Your task to perform on an android device: Search for pizza restaurants on Maps Image 0: 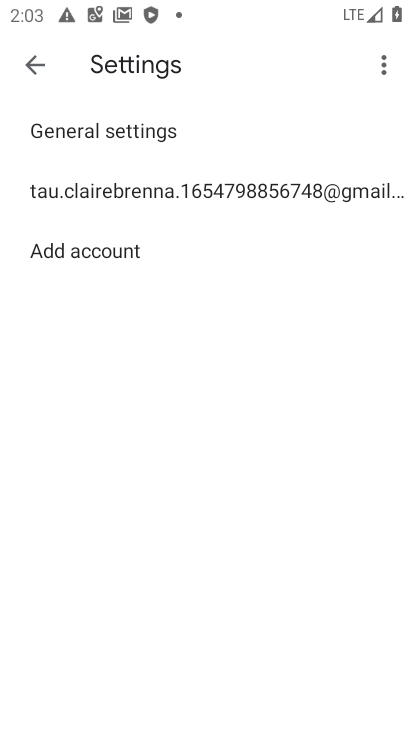
Step 0: press home button
Your task to perform on an android device: Search for pizza restaurants on Maps Image 1: 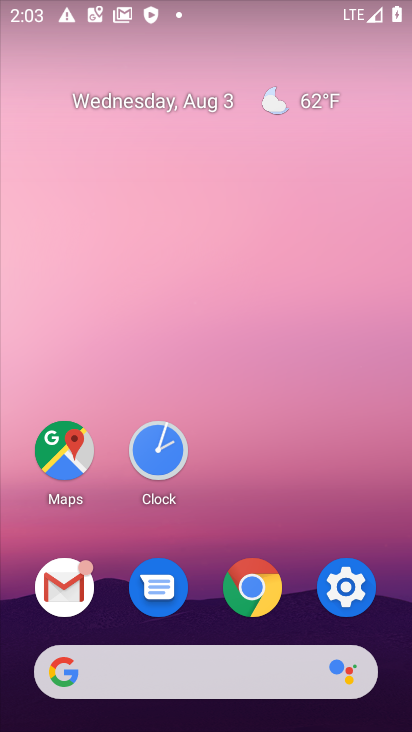
Step 1: click (60, 450)
Your task to perform on an android device: Search for pizza restaurants on Maps Image 2: 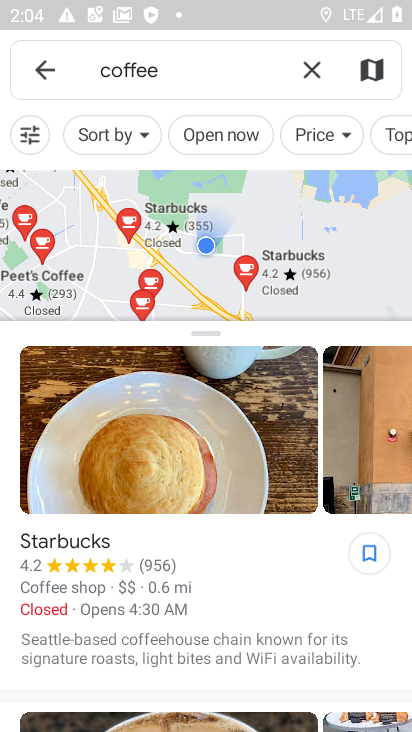
Step 2: click (310, 65)
Your task to perform on an android device: Search for pizza restaurants on Maps Image 3: 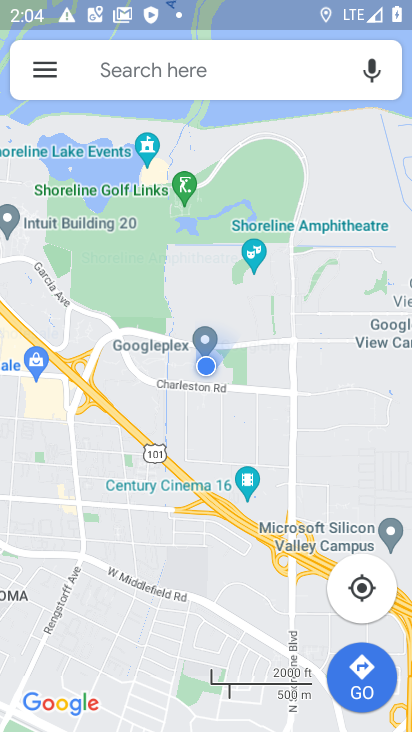
Step 3: click (172, 59)
Your task to perform on an android device: Search for pizza restaurants on Maps Image 4: 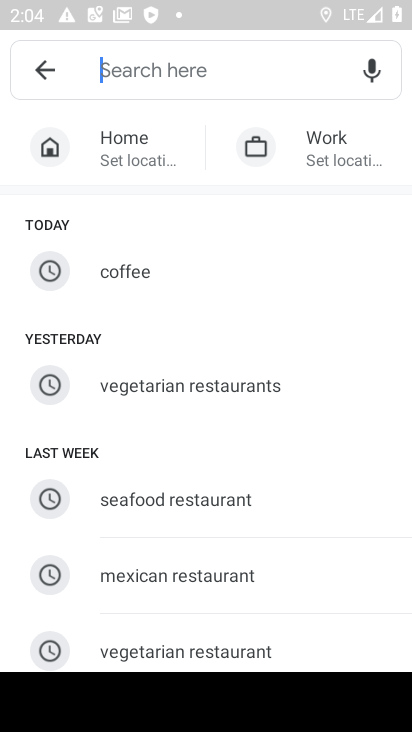
Step 4: type "pizza"
Your task to perform on an android device: Search for pizza restaurants on Maps Image 5: 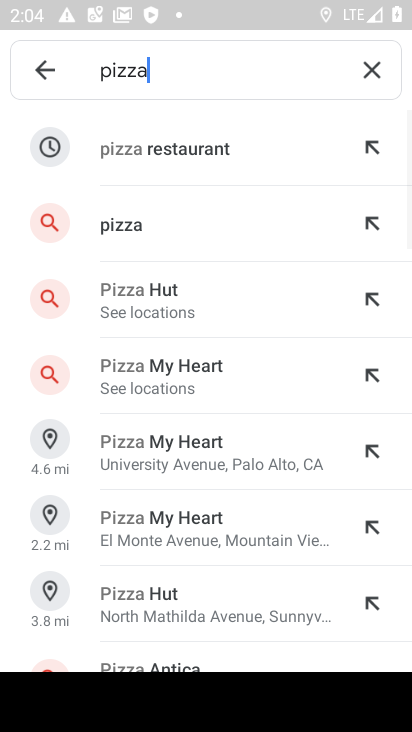
Step 5: click (152, 143)
Your task to perform on an android device: Search for pizza restaurants on Maps Image 6: 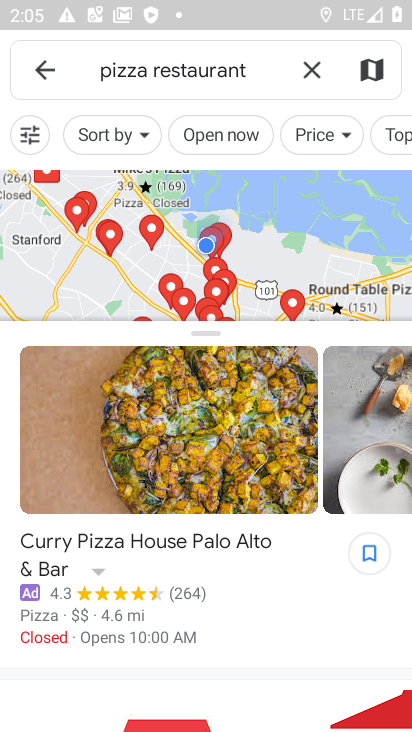
Step 6: task complete